Your task to perform on an android device: toggle pop-ups in chrome Image 0: 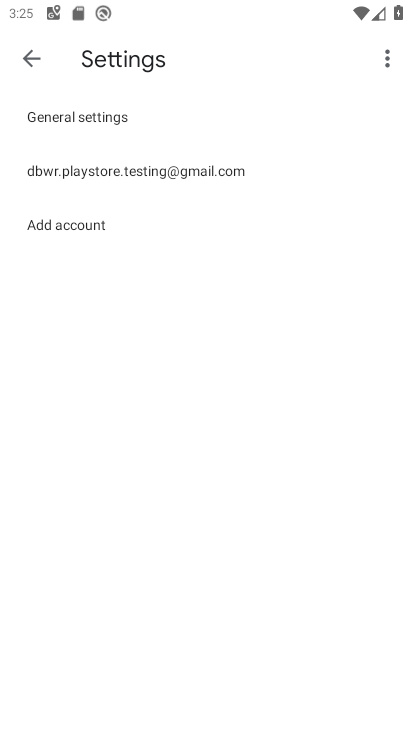
Step 0: press home button
Your task to perform on an android device: toggle pop-ups in chrome Image 1: 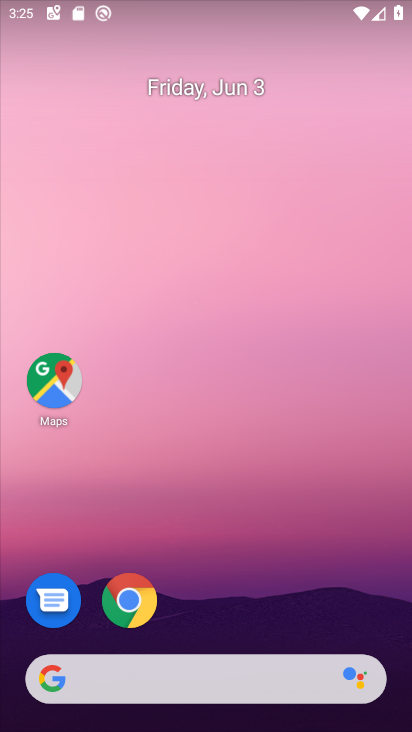
Step 1: click (128, 606)
Your task to perform on an android device: toggle pop-ups in chrome Image 2: 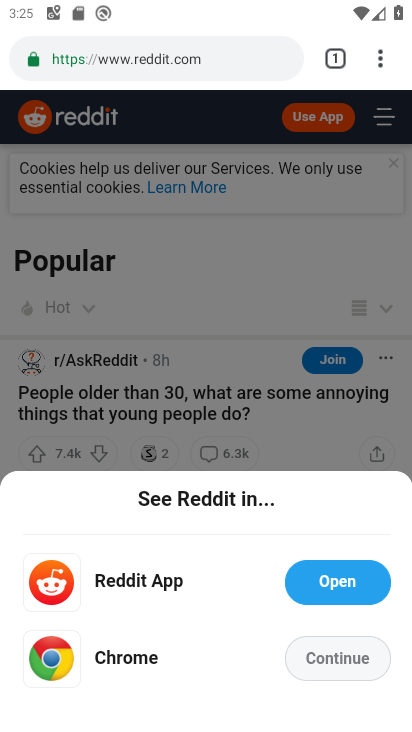
Step 2: drag from (382, 63) to (213, 638)
Your task to perform on an android device: toggle pop-ups in chrome Image 3: 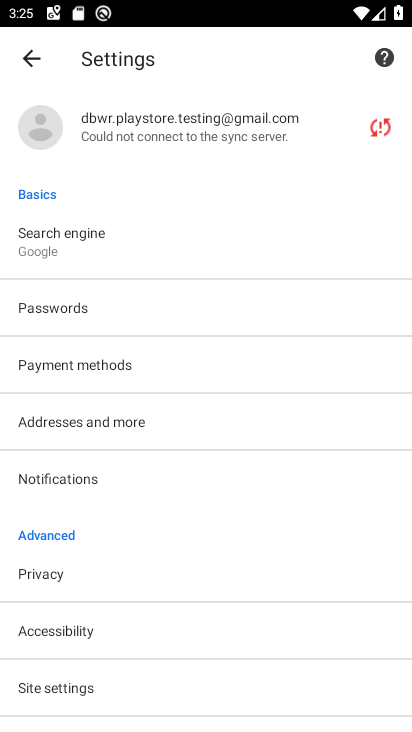
Step 3: click (65, 679)
Your task to perform on an android device: toggle pop-ups in chrome Image 4: 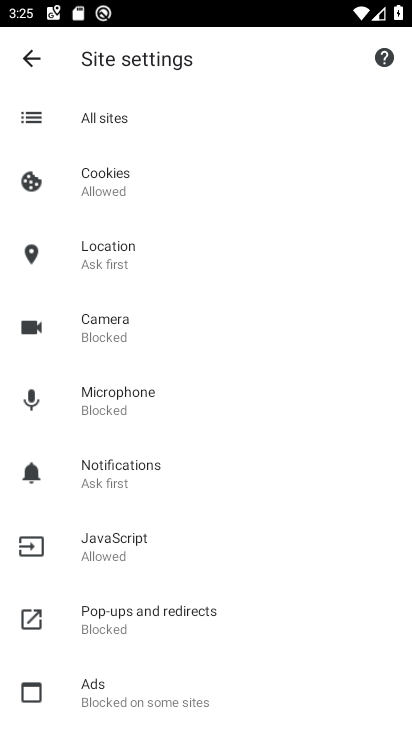
Step 4: click (134, 610)
Your task to perform on an android device: toggle pop-ups in chrome Image 5: 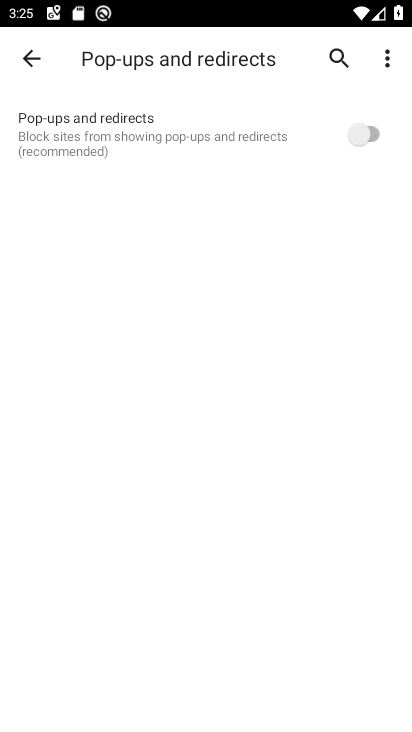
Step 5: click (377, 143)
Your task to perform on an android device: toggle pop-ups in chrome Image 6: 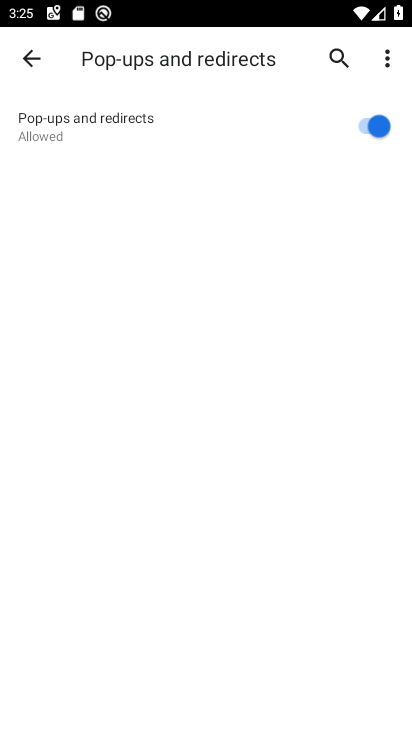
Step 6: task complete